Your task to perform on an android device: turn off location Image 0: 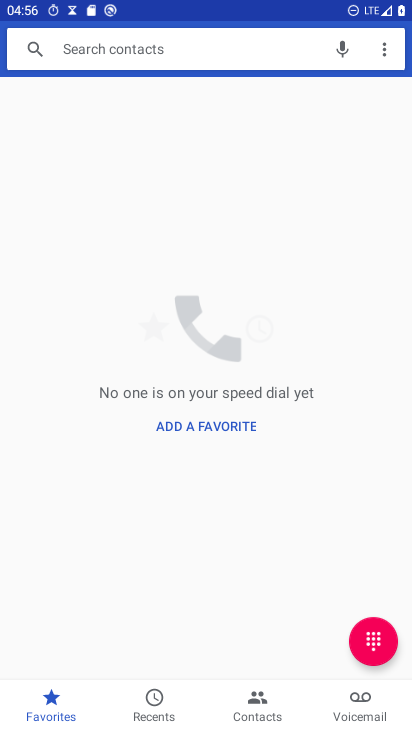
Step 0: press home button
Your task to perform on an android device: turn off location Image 1: 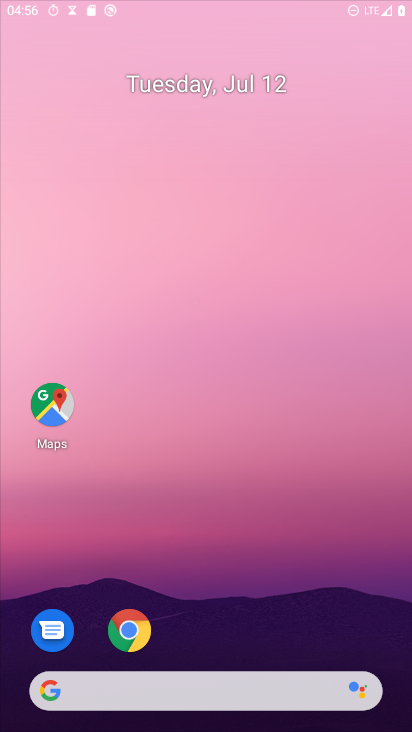
Step 1: drag from (279, 445) to (303, 44)
Your task to perform on an android device: turn off location Image 2: 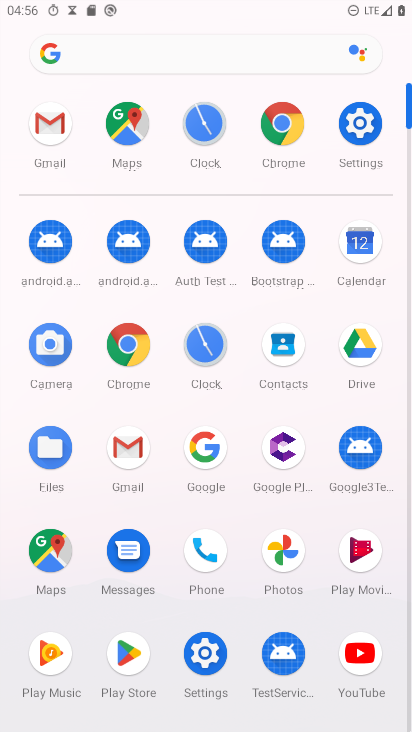
Step 2: click (360, 130)
Your task to perform on an android device: turn off location Image 3: 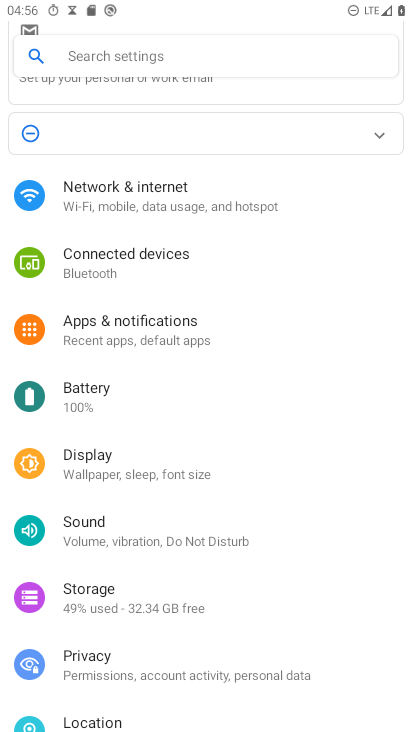
Step 3: click (143, 725)
Your task to perform on an android device: turn off location Image 4: 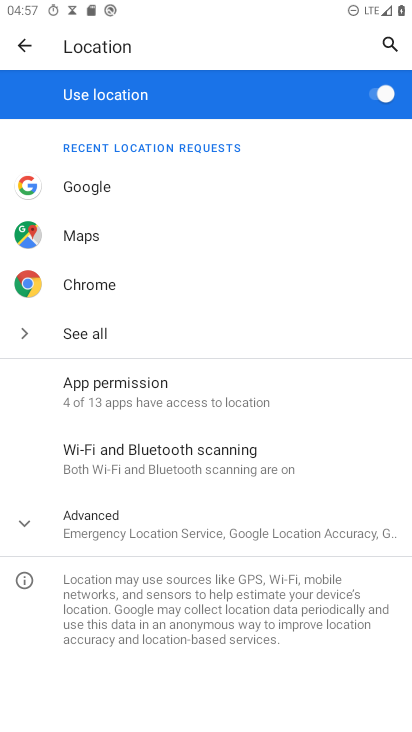
Step 4: click (368, 92)
Your task to perform on an android device: turn off location Image 5: 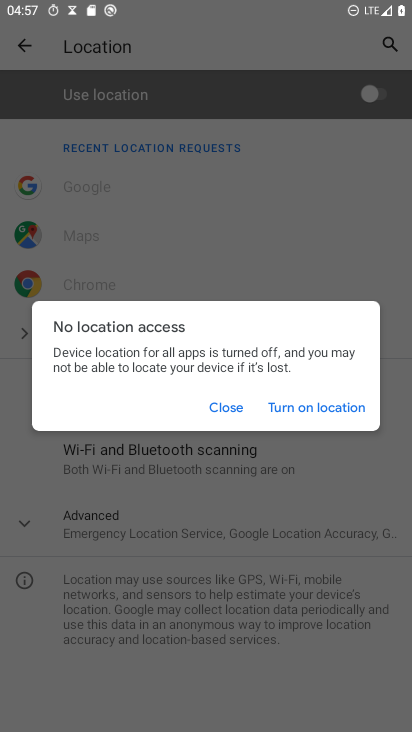
Step 5: click (234, 404)
Your task to perform on an android device: turn off location Image 6: 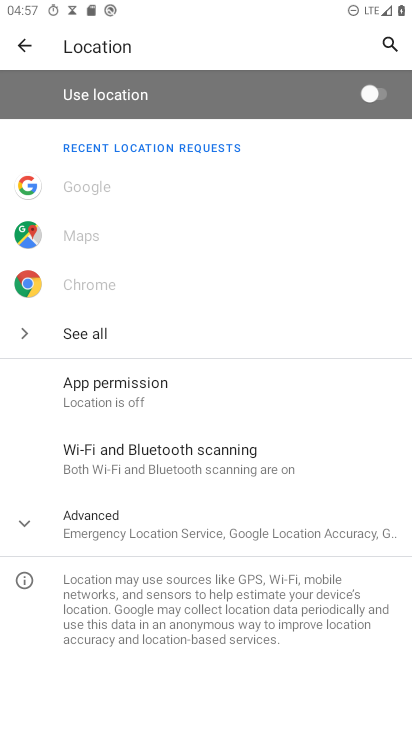
Step 6: task complete